Your task to perform on an android device: change notification settings in the gmail app Image 0: 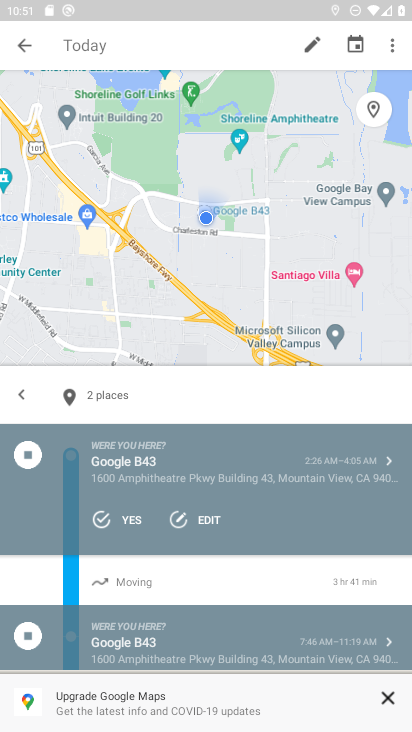
Step 0: click (199, 127)
Your task to perform on an android device: change notification settings in the gmail app Image 1: 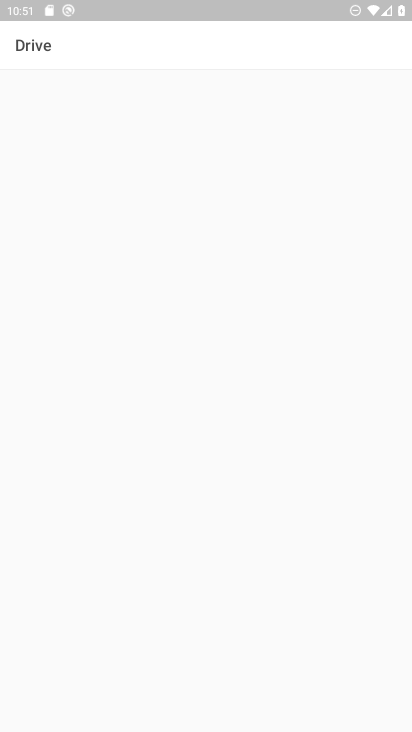
Step 1: press home button
Your task to perform on an android device: change notification settings in the gmail app Image 2: 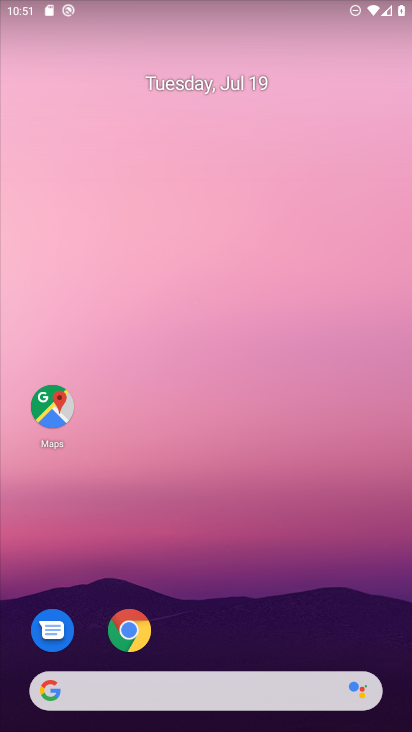
Step 2: drag from (204, 629) to (187, 246)
Your task to perform on an android device: change notification settings in the gmail app Image 3: 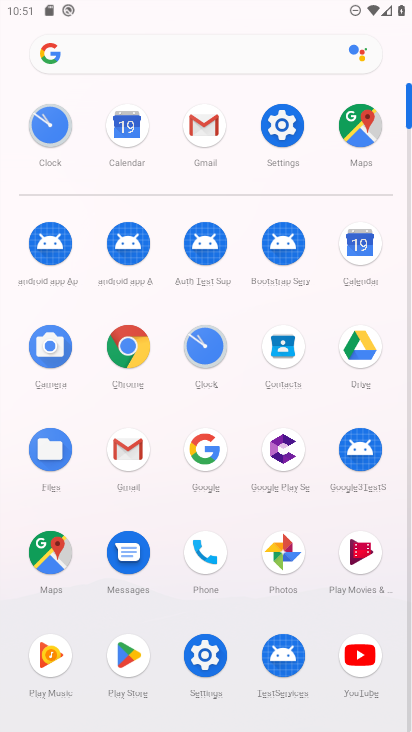
Step 3: click (121, 462)
Your task to perform on an android device: change notification settings in the gmail app Image 4: 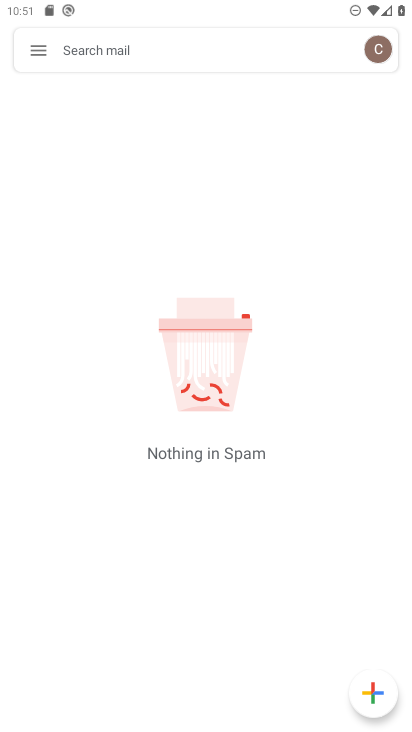
Step 4: click (39, 50)
Your task to perform on an android device: change notification settings in the gmail app Image 5: 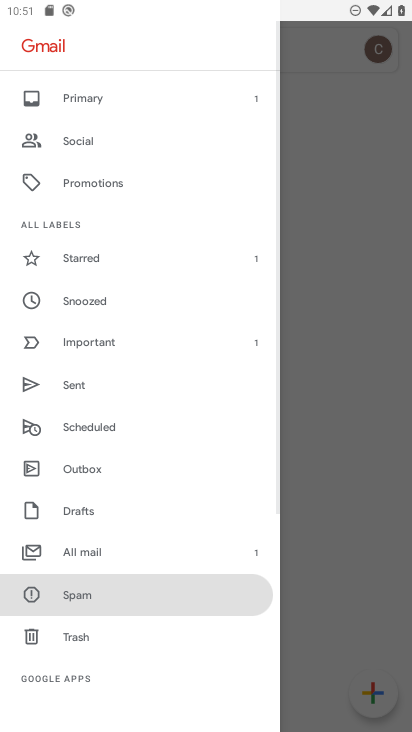
Step 5: drag from (135, 645) to (139, 382)
Your task to perform on an android device: change notification settings in the gmail app Image 6: 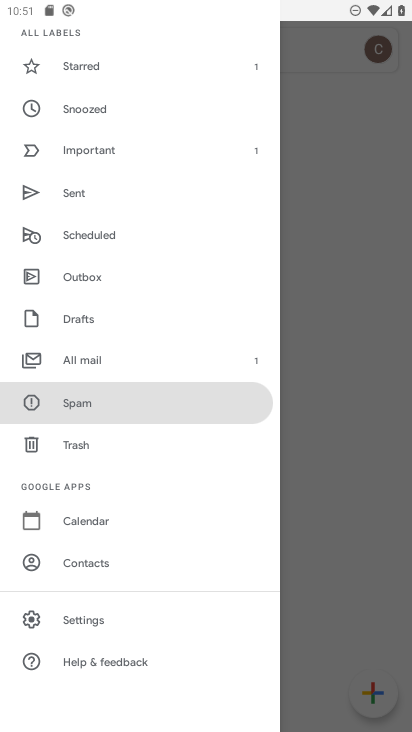
Step 6: click (88, 609)
Your task to perform on an android device: change notification settings in the gmail app Image 7: 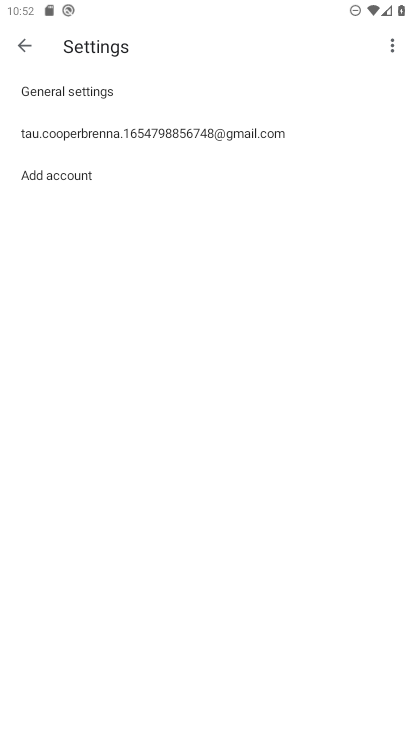
Step 7: click (110, 136)
Your task to perform on an android device: change notification settings in the gmail app Image 8: 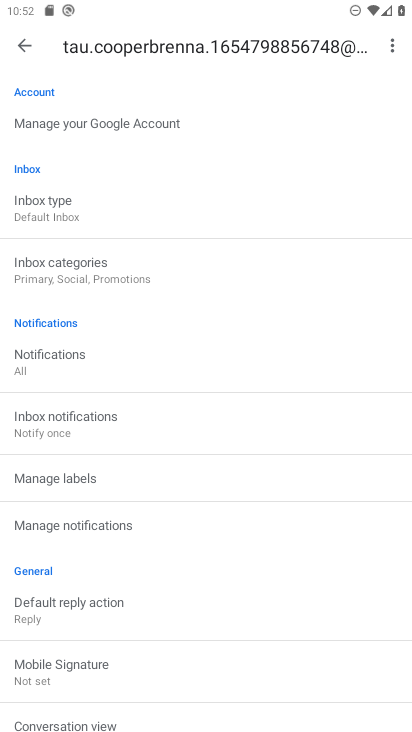
Step 8: click (135, 530)
Your task to perform on an android device: change notification settings in the gmail app Image 9: 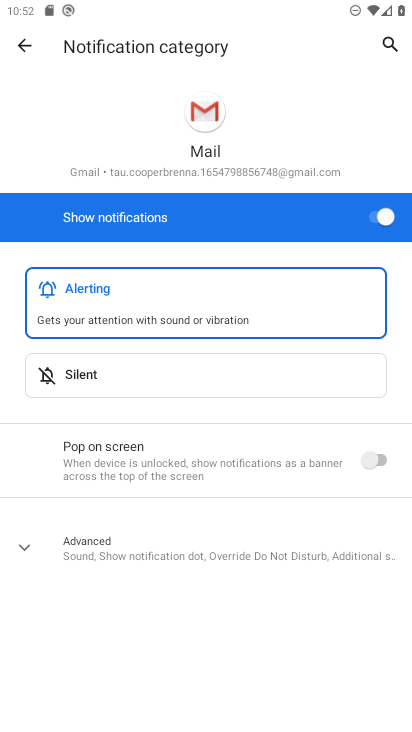
Step 9: click (373, 219)
Your task to perform on an android device: change notification settings in the gmail app Image 10: 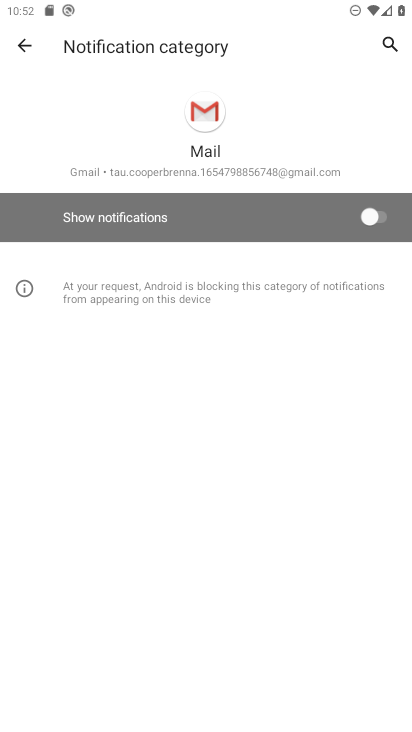
Step 10: task complete